Your task to perform on an android device: When is my next meeting? Image 0: 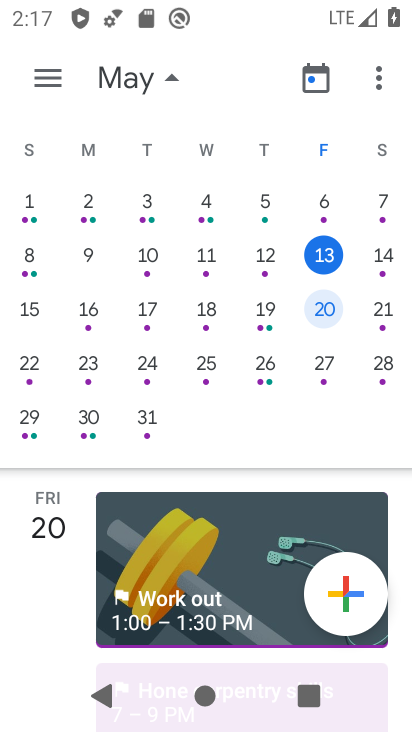
Step 0: press home button
Your task to perform on an android device: When is my next meeting? Image 1: 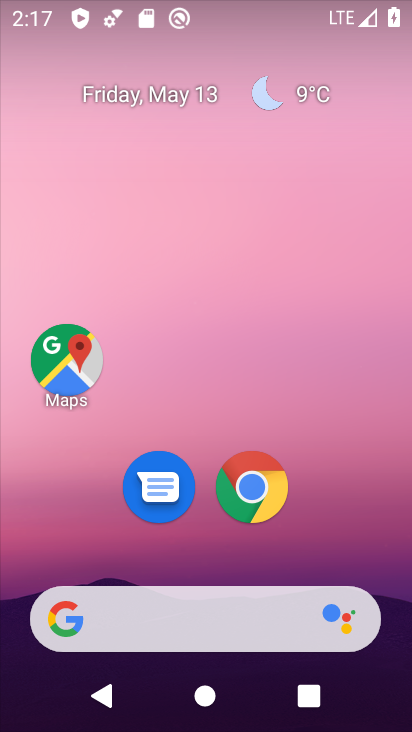
Step 1: drag from (200, 546) to (198, 139)
Your task to perform on an android device: When is my next meeting? Image 2: 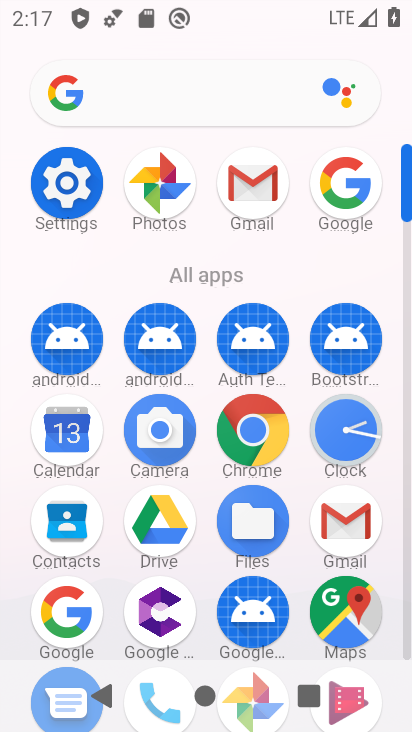
Step 2: click (59, 444)
Your task to perform on an android device: When is my next meeting? Image 3: 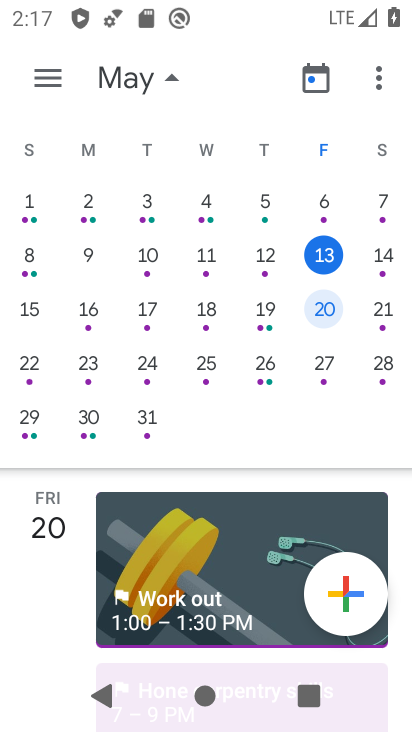
Step 3: click (269, 316)
Your task to perform on an android device: When is my next meeting? Image 4: 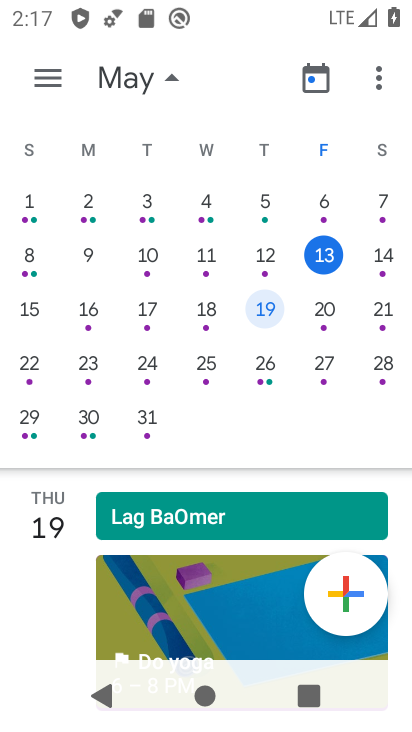
Step 4: task complete